Your task to perform on an android device: Open Google Image 0: 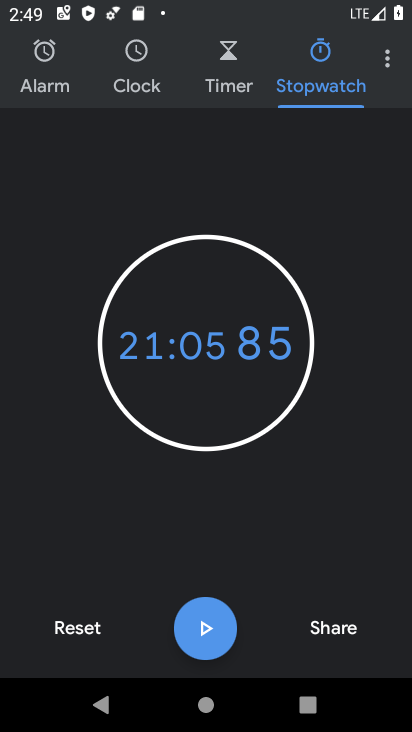
Step 0: press home button
Your task to perform on an android device: Open Google Image 1: 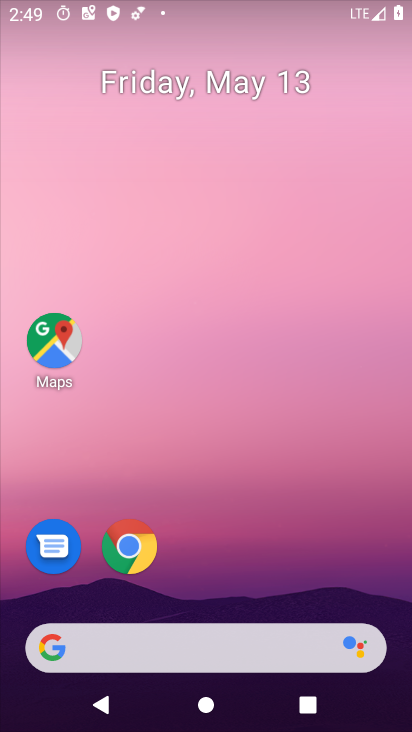
Step 1: drag from (150, 576) to (207, 174)
Your task to perform on an android device: Open Google Image 2: 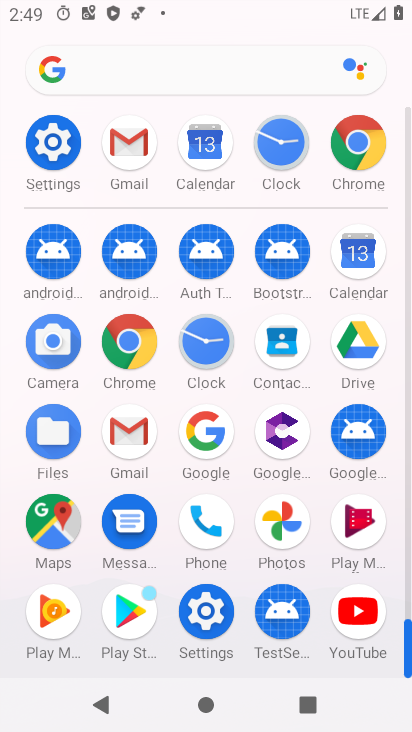
Step 2: click (218, 448)
Your task to perform on an android device: Open Google Image 3: 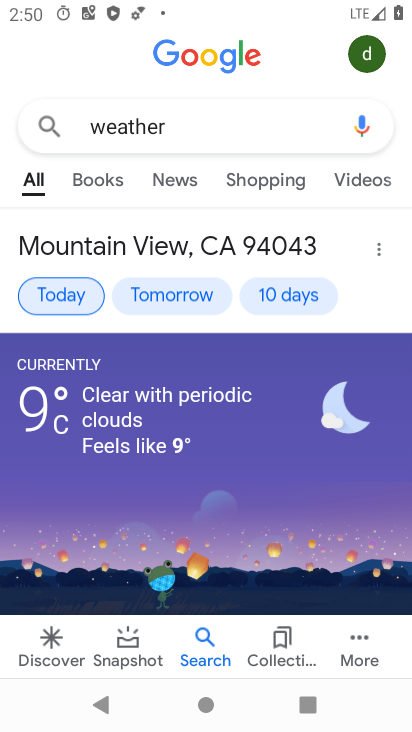
Step 3: task complete